Your task to perform on an android device: Go to sound settings Image 0: 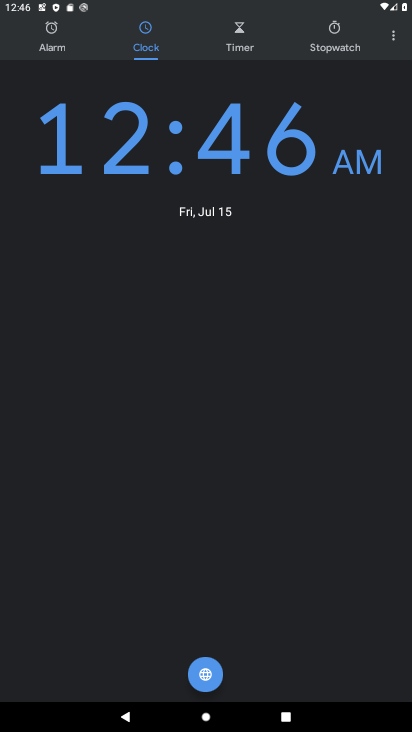
Step 0: press home button
Your task to perform on an android device: Go to sound settings Image 1: 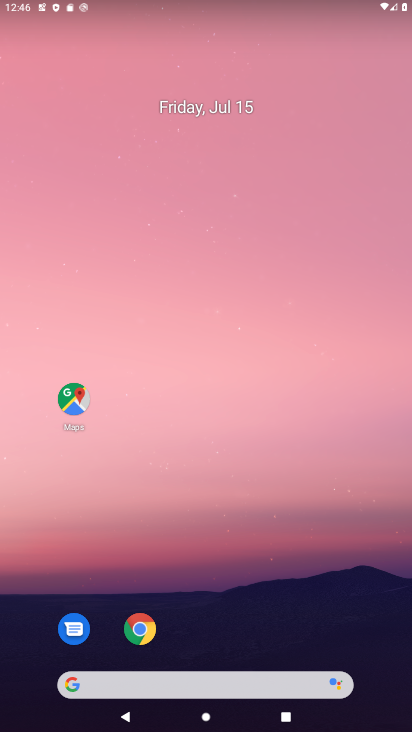
Step 1: drag from (307, 593) to (373, 46)
Your task to perform on an android device: Go to sound settings Image 2: 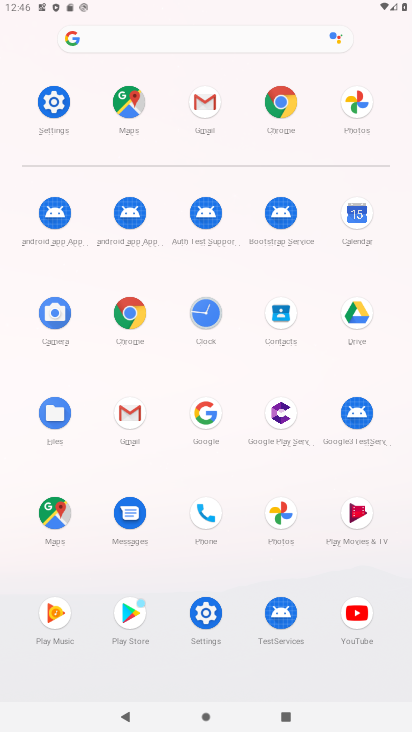
Step 2: click (59, 102)
Your task to perform on an android device: Go to sound settings Image 3: 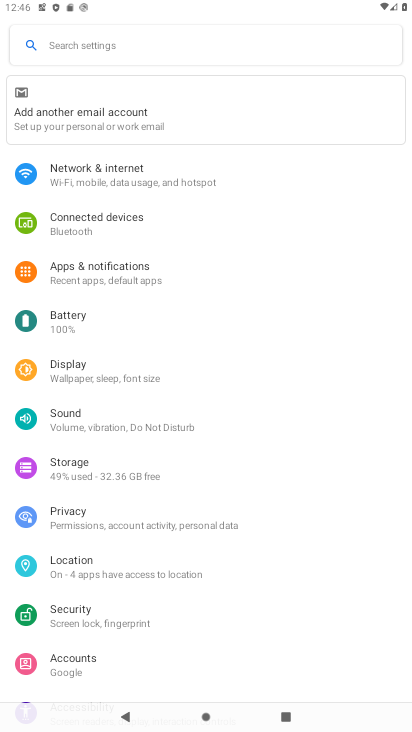
Step 3: click (62, 422)
Your task to perform on an android device: Go to sound settings Image 4: 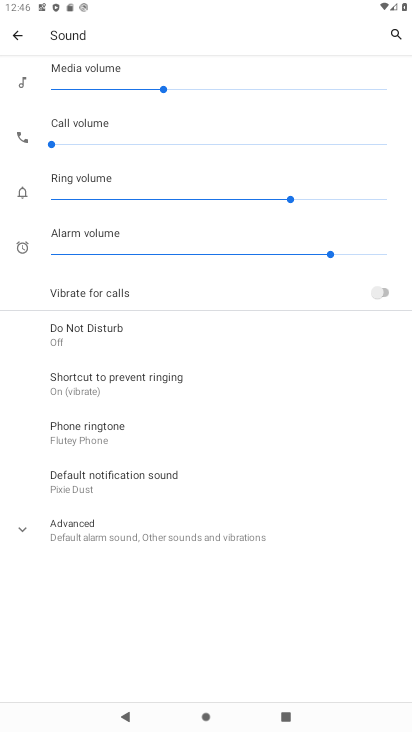
Step 4: task complete